Your task to perform on an android device: turn off translation in the chrome app Image 0: 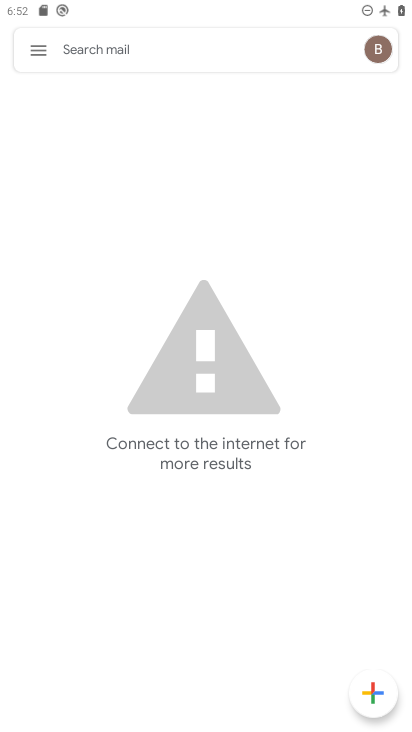
Step 0: press home button
Your task to perform on an android device: turn off translation in the chrome app Image 1: 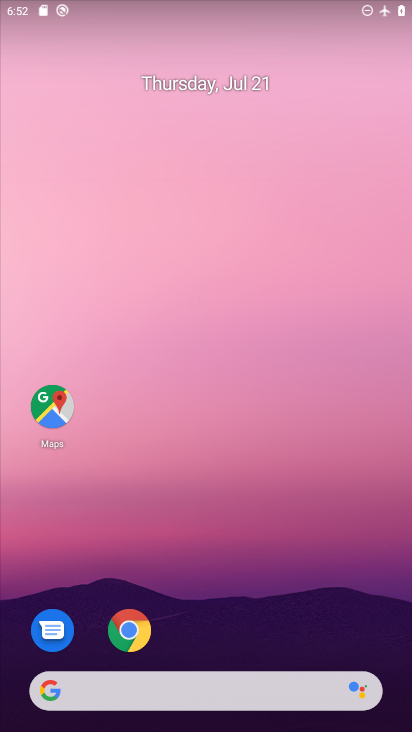
Step 1: click (129, 629)
Your task to perform on an android device: turn off translation in the chrome app Image 2: 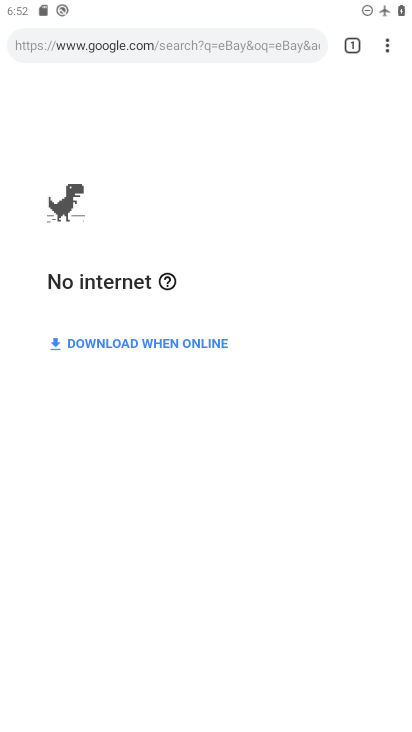
Step 2: click (388, 46)
Your task to perform on an android device: turn off translation in the chrome app Image 3: 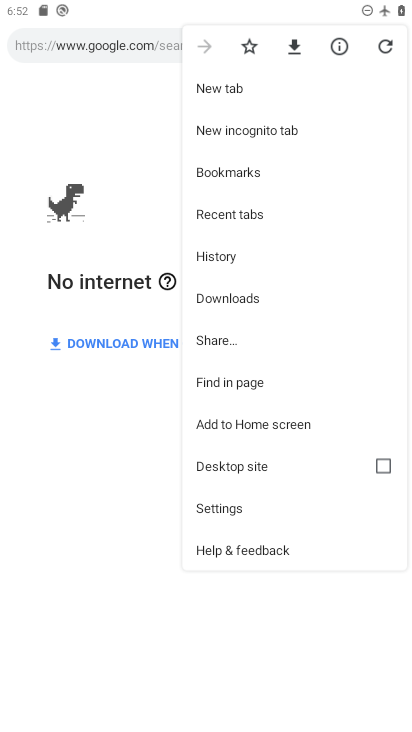
Step 3: click (227, 510)
Your task to perform on an android device: turn off translation in the chrome app Image 4: 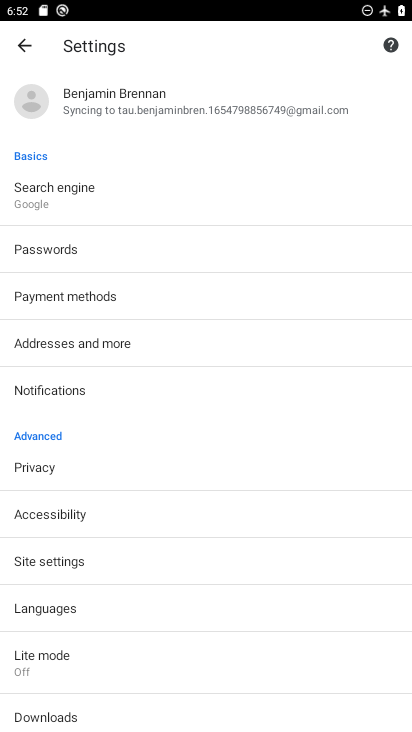
Step 4: click (60, 610)
Your task to perform on an android device: turn off translation in the chrome app Image 5: 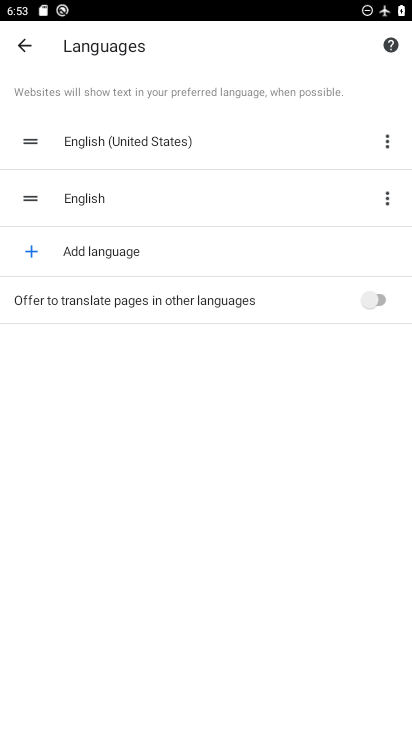
Step 5: task complete